Your task to perform on an android device: remove spam from my inbox in the gmail app Image 0: 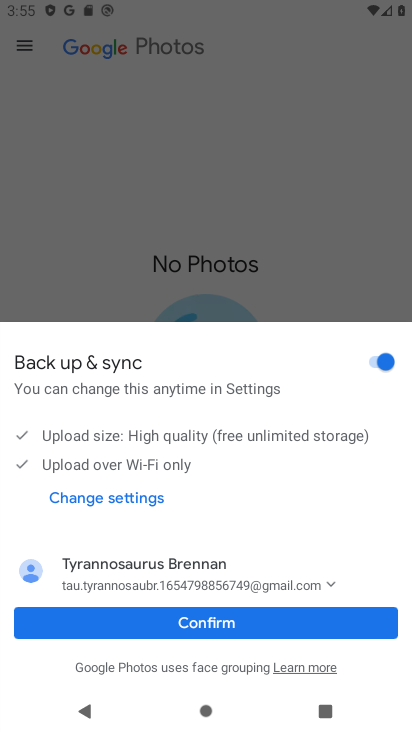
Step 0: press home button
Your task to perform on an android device: remove spam from my inbox in the gmail app Image 1: 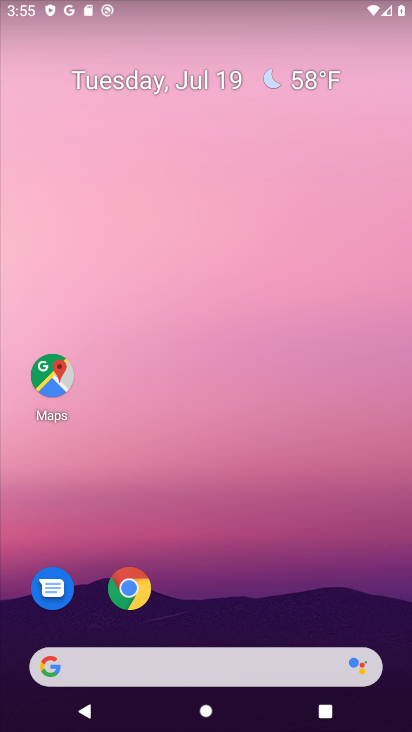
Step 1: drag from (243, 625) to (270, 127)
Your task to perform on an android device: remove spam from my inbox in the gmail app Image 2: 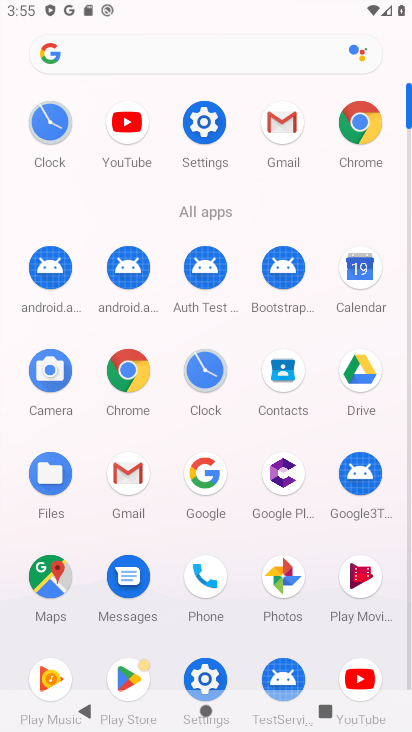
Step 2: click (141, 490)
Your task to perform on an android device: remove spam from my inbox in the gmail app Image 3: 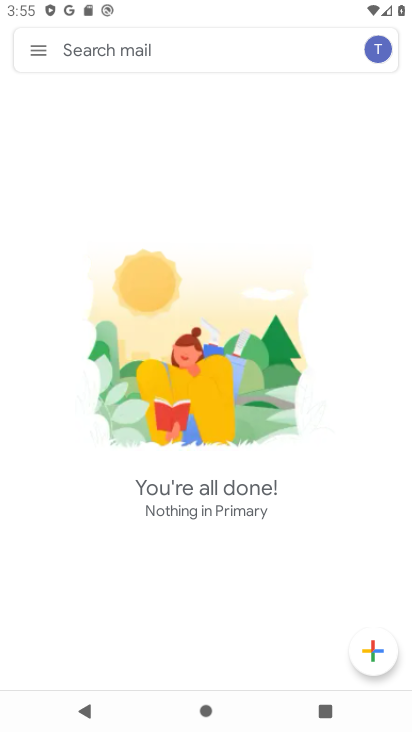
Step 3: click (44, 58)
Your task to perform on an android device: remove spam from my inbox in the gmail app Image 4: 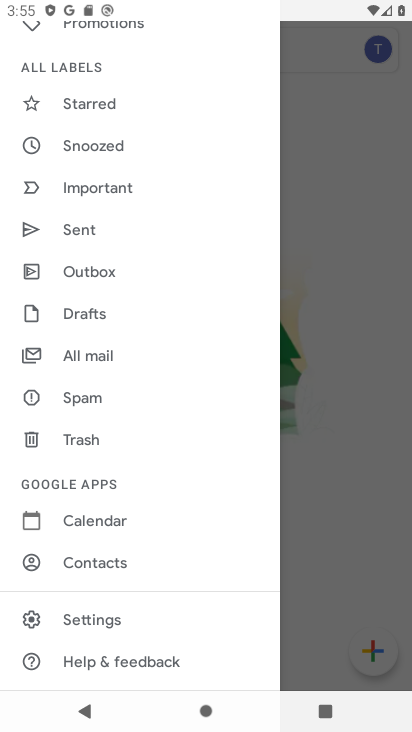
Step 4: click (103, 400)
Your task to perform on an android device: remove spam from my inbox in the gmail app Image 5: 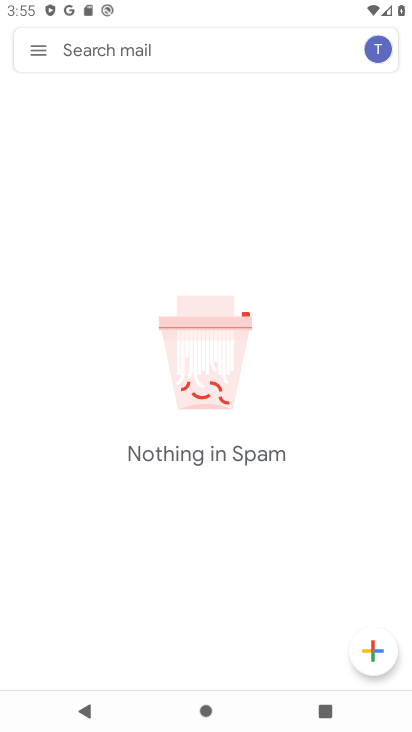
Step 5: task complete